Your task to perform on an android device: turn on the 12-hour format for clock Image 0: 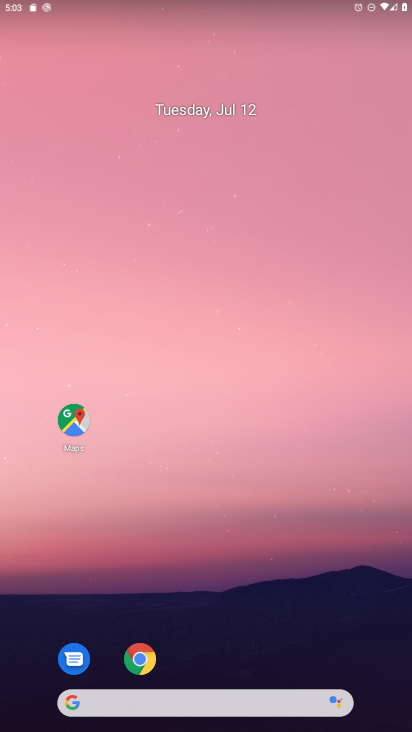
Step 0: drag from (198, 609) to (166, 241)
Your task to perform on an android device: turn on the 12-hour format for clock Image 1: 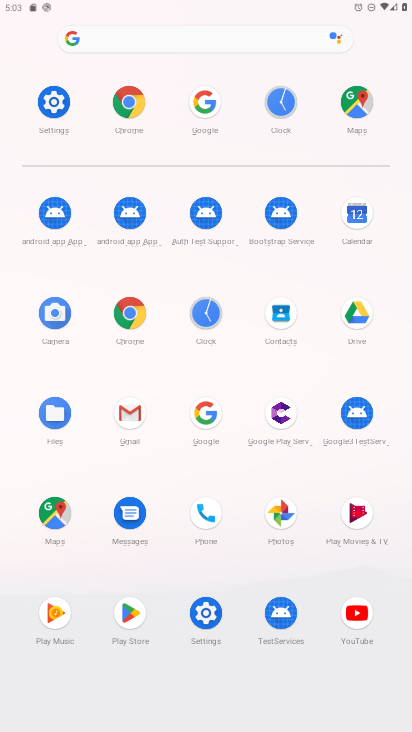
Step 1: click (49, 115)
Your task to perform on an android device: turn on the 12-hour format for clock Image 2: 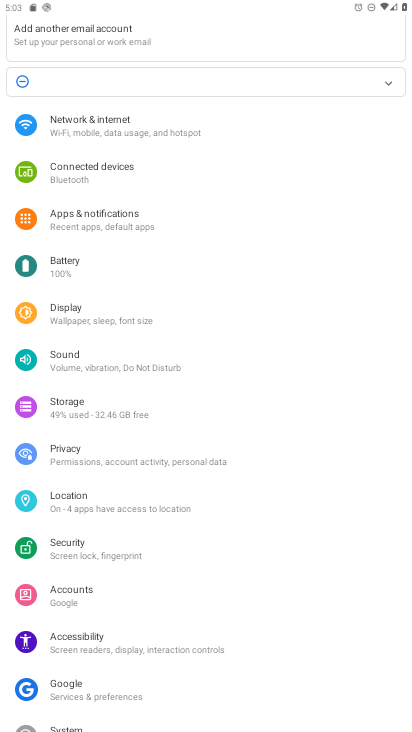
Step 2: press back button
Your task to perform on an android device: turn on the 12-hour format for clock Image 3: 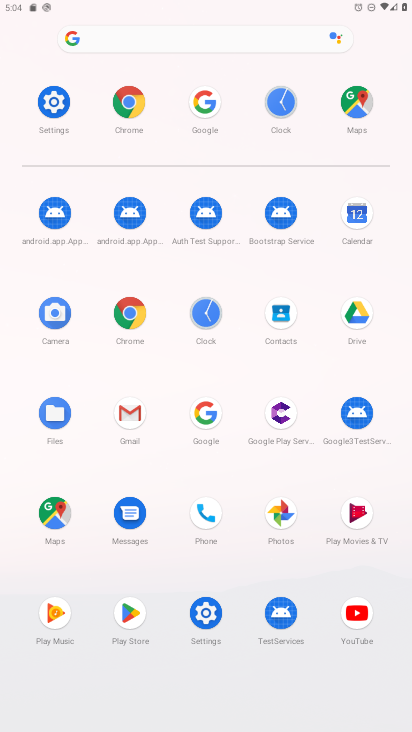
Step 3: click (205, 320)
Your task to perform on an android device: turn on the 12-hour format for clock Image 4: 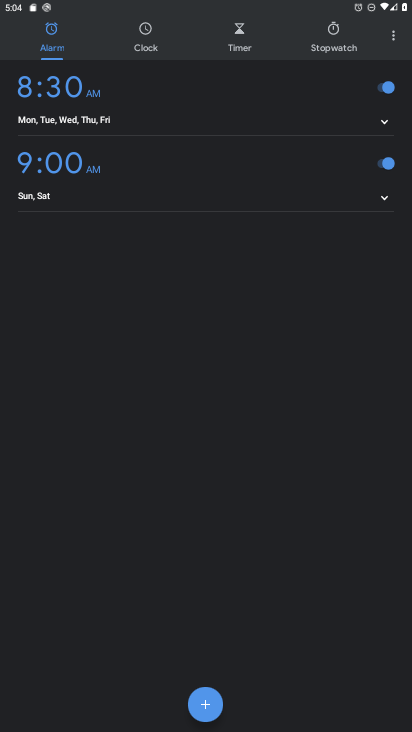
Step 4: click (393, 35)
Your task to perform on an android device: turn on the 12-hour format for clock Image 5: 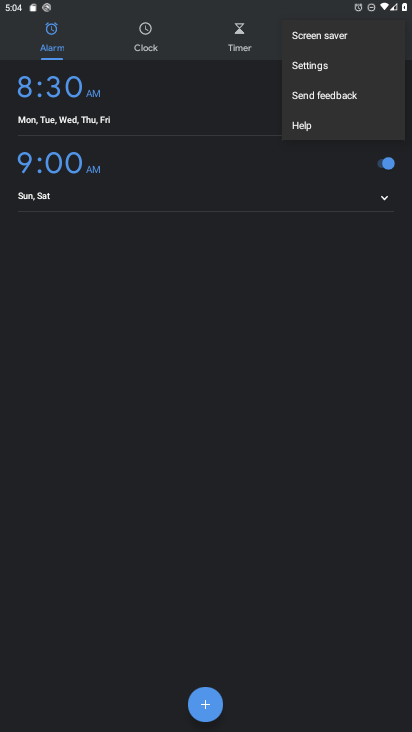
Step 5: click (328, 66)
Your task to perform on an android device: turn on the 12-hour format for clock Image 6: 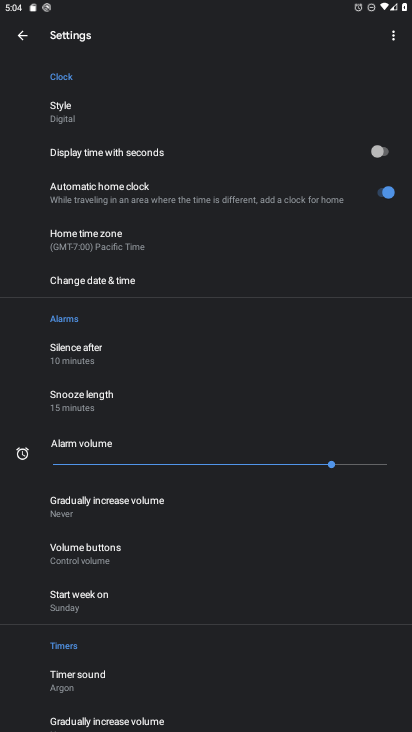
Step 6: click (76, 281)
Your task to perform on an android device: turn on the 12-hour format for clock Image 7: 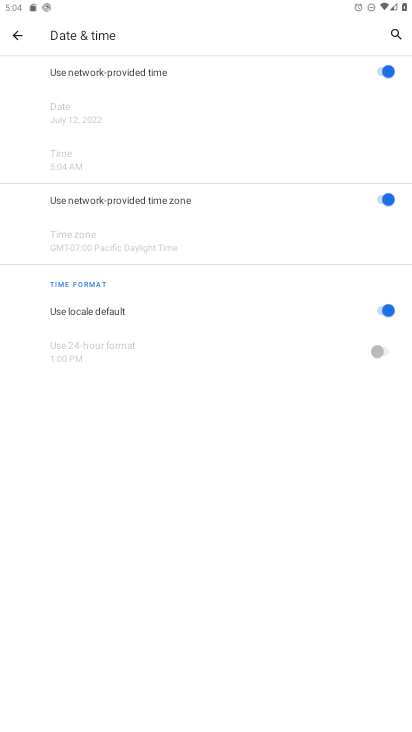
Step 7: click (368, 306)
Your task to perform on an android device: turn on the 12-hour format for clock Image 8: 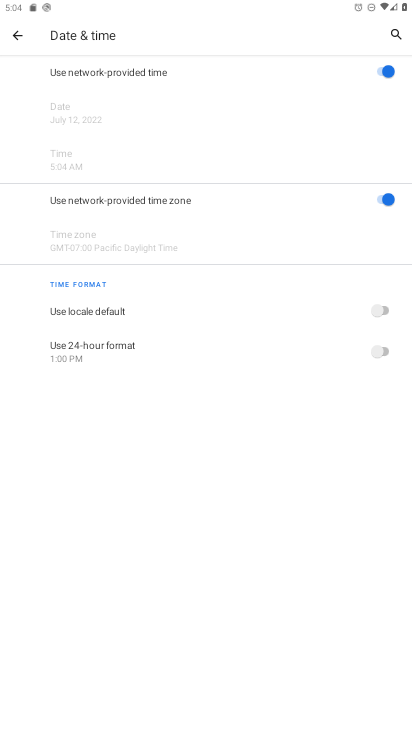
Step 8: click (392, 355)
Your task to perform on an android device: turn on the 12-hour format for clock Image 9: 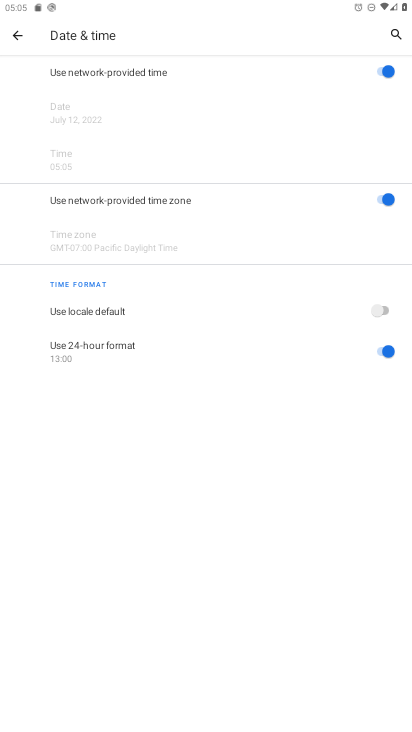
Step 9: click (392, 355)
Your task to perform on an android device: turn on the 12-hour format for clock Image 10: 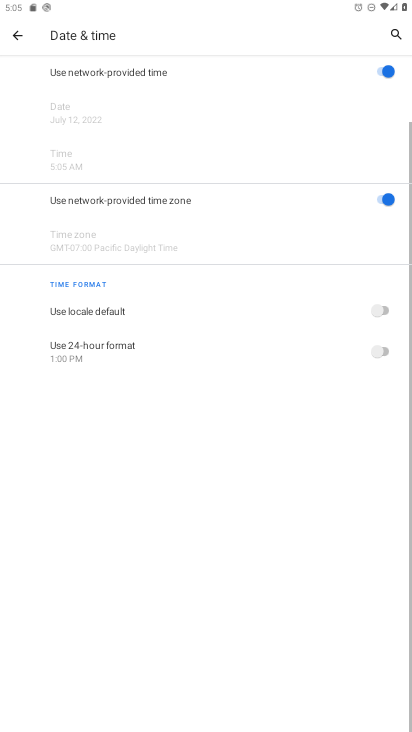
Step 10: task complete